Your task to perform on an android device: Search for Mexican restaurants on Maps Image 0: 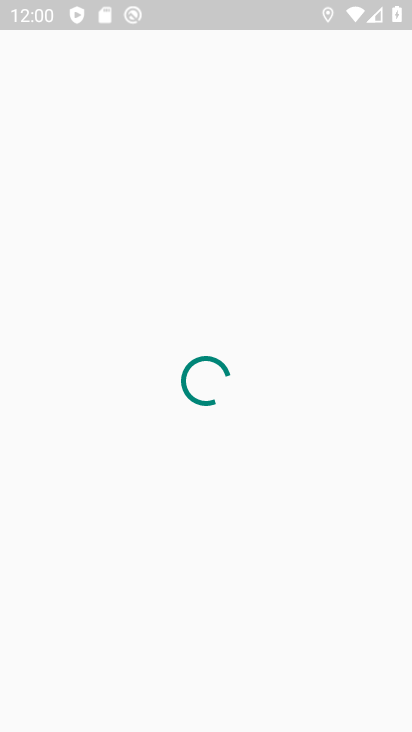
Step 0: press home button
Your task to perform on an android device: Search for Mexican restaurants on Maps Image 1: 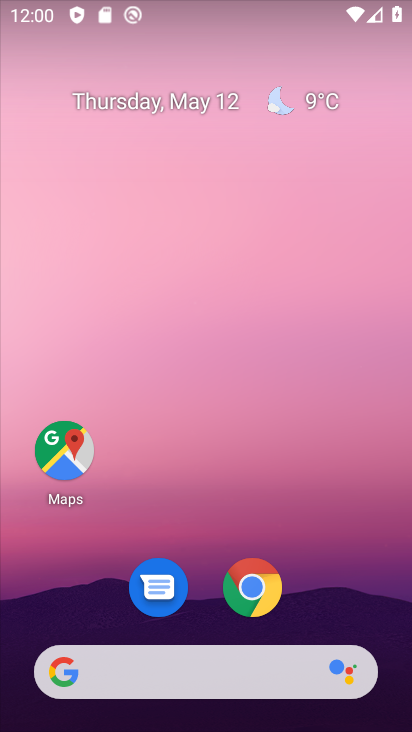
Step 1: drag from (327, 552) to (333, 285)
Your task to perform on an android device: Search for Mexican restaurants on Maps Image 2: 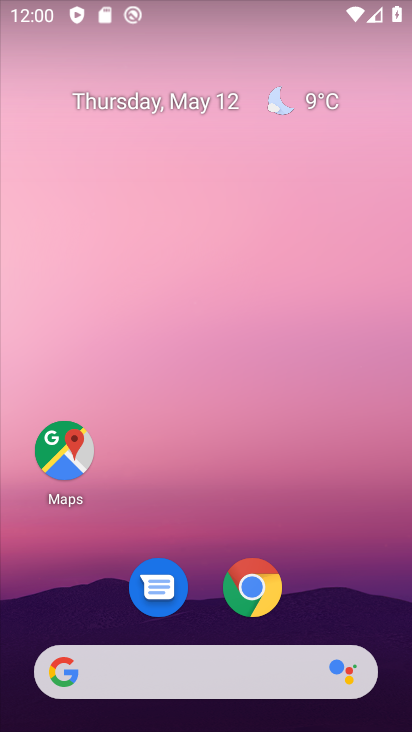
Step 2: drag from (320, 573) to (286, 190)
Your task to perform on an android device: Search for Mexican restaurants on Maps Image 3: 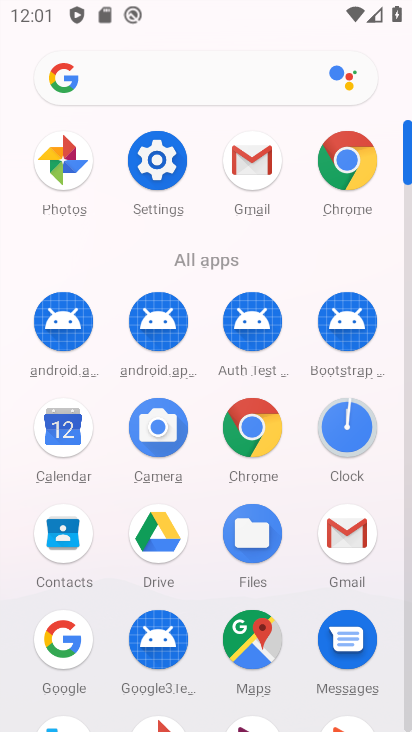
Step 3: click (245, 624)
Your task to perform on an android device: Search for Mexican restaurants on Maps Image 4: 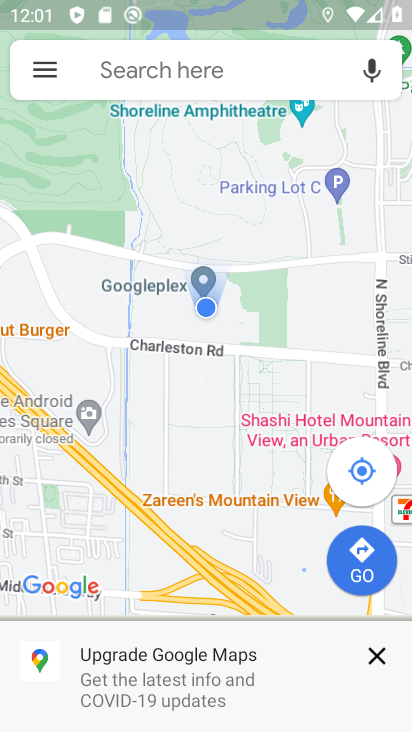
Step 4: click (232, 66)
Your task to perform on an android device: Search for Mexican restaurants on Maps Image 5: 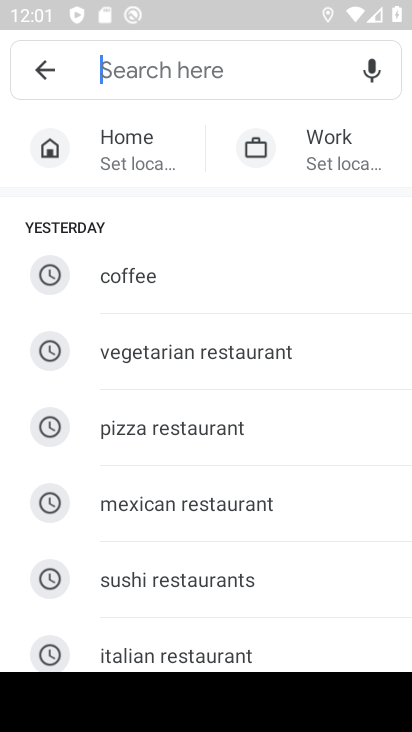
Step 5: click (211, 522)
Your task to perform on an android device: Search for Mexican restaurants on Maps Image 6: 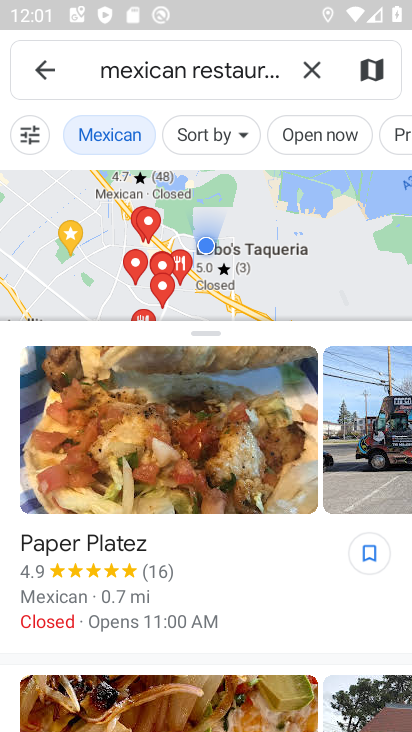
Step 6: task complete